Your task to perform on an android device: check android version Image 0: 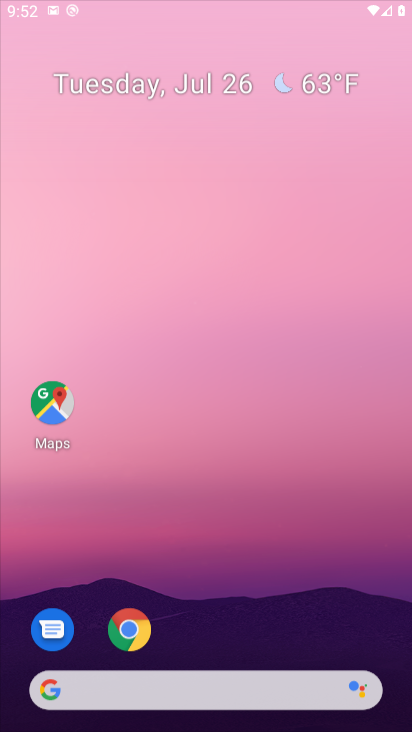
Step 0: press home button
Your task to perform on an android device: check android version Image 1: 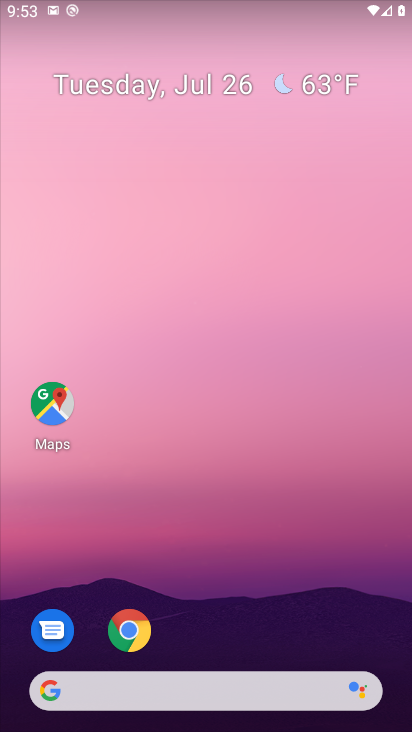
Step 1: drag from (229, 654) to (260, 48)
Your task to perform on an android device: check android version Image 2: 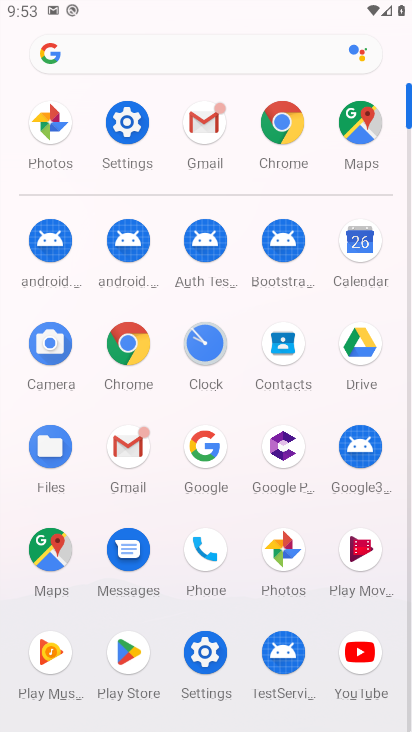
Step 2: click (125, 117)
Your task to perform on an android device: check android version Image 3: 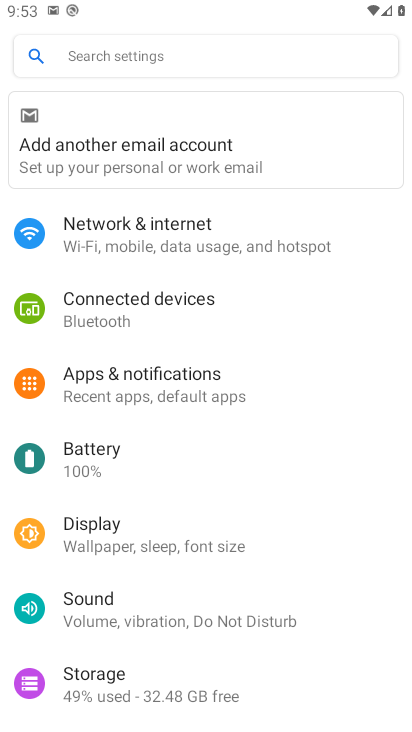
Step 3: drag from (211, 676) to (220, 98)
Your task to perform on an android device: check android version Image 4: 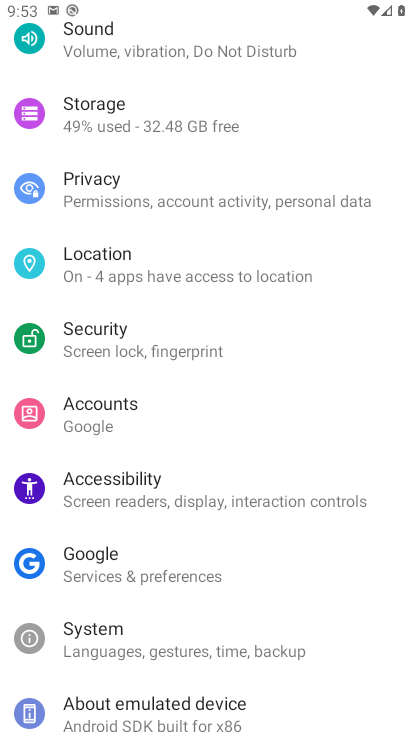
Step 4: click (248, 707)
Your task to perform on an android device: check android version Image 5: 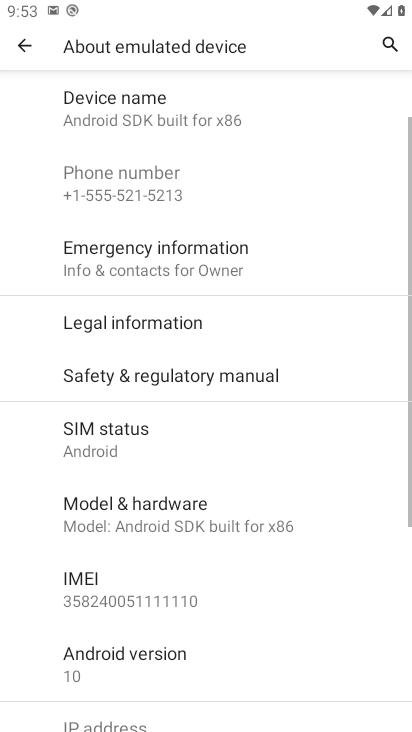
Step 5: click (102, 671)
Your task to perform on an android device: check android version Image 6: 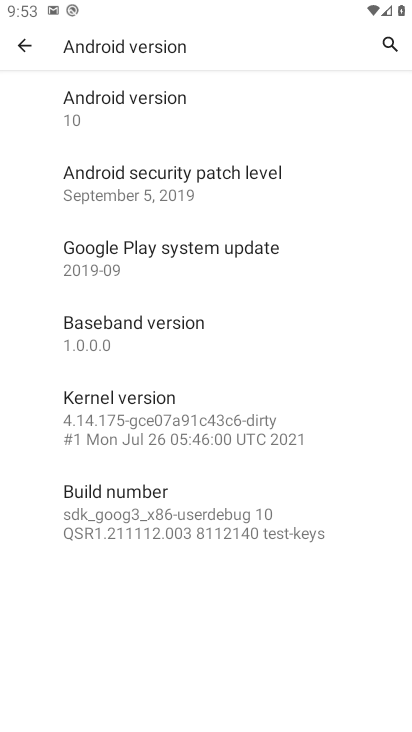
Step 6: task complete